Your task to perform on an android device: turn notification dots on Image 0: 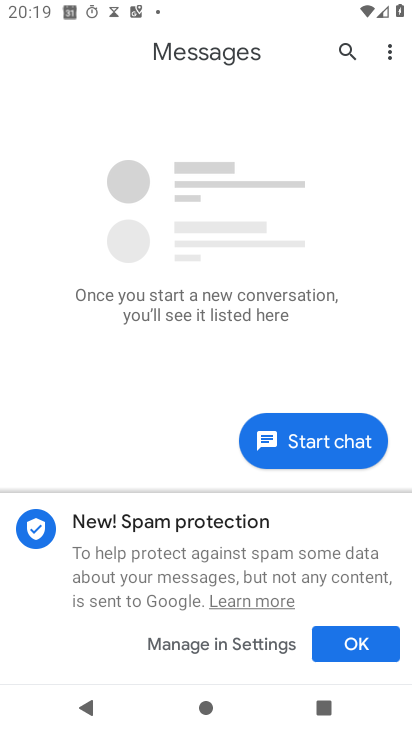
Step 0: press home button
Your task to perform on an android device: turn notification dots on Image 1: 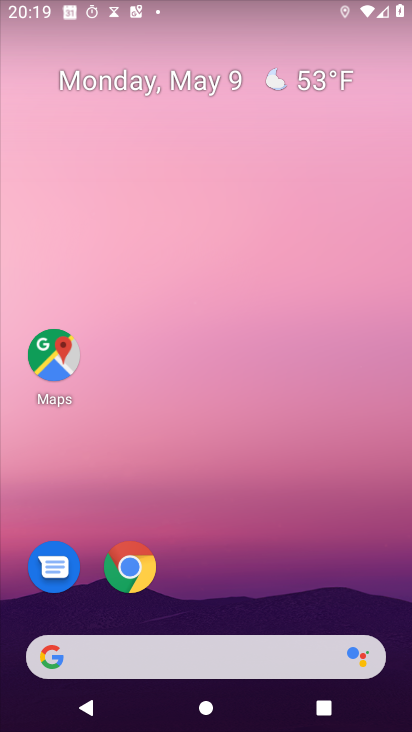
Step 1: drag from (273, 560) to (269, 13)
Your task to perform on an android device: turn notification dots on Image 2: 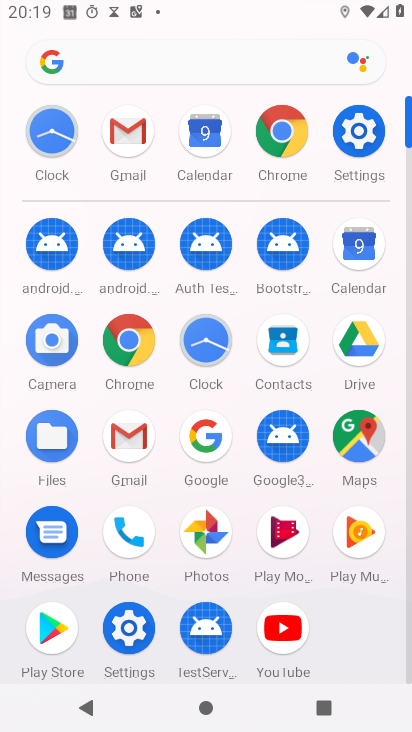
Step 2: click (343, 153)
Your task to perform on an android device: turn notification dots on Image 3: 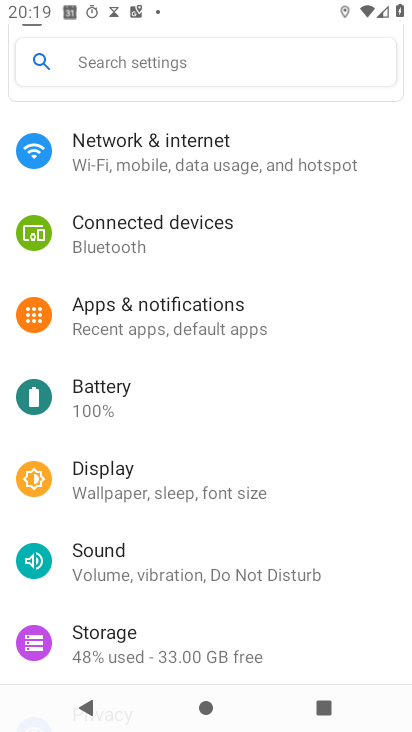
Step 3: drag from (127, 601) to (129, 413)
Your task to perform on an android device: turn notification dots on Image 4: 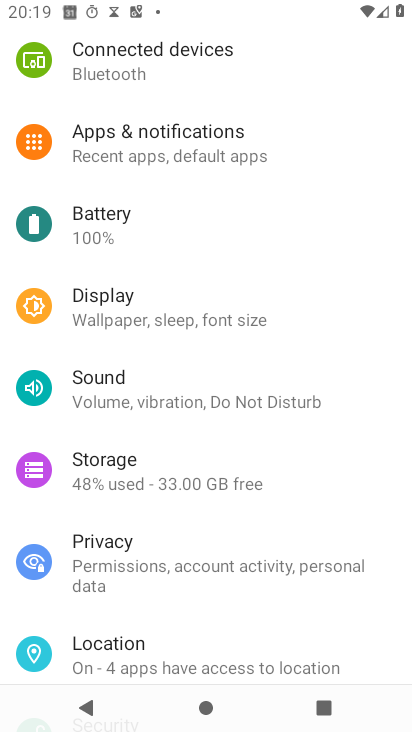
Step 4: click (214, 162)
Your task to perform on an android device: turn notification dots on Image 5: 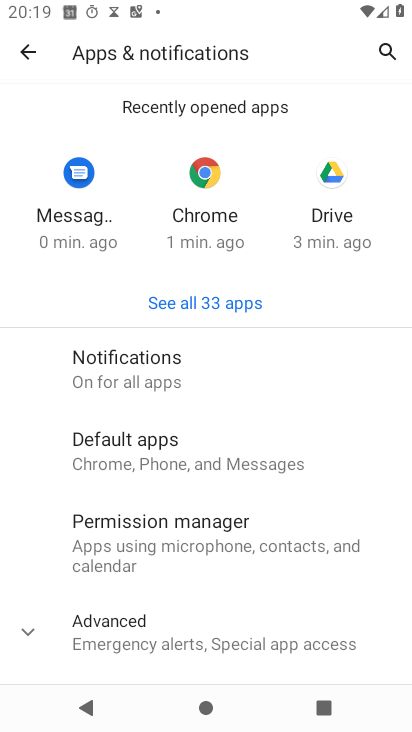
Step 5: click (169, 368)
Your task to perform on an android device: turn notification dots on Image 6: 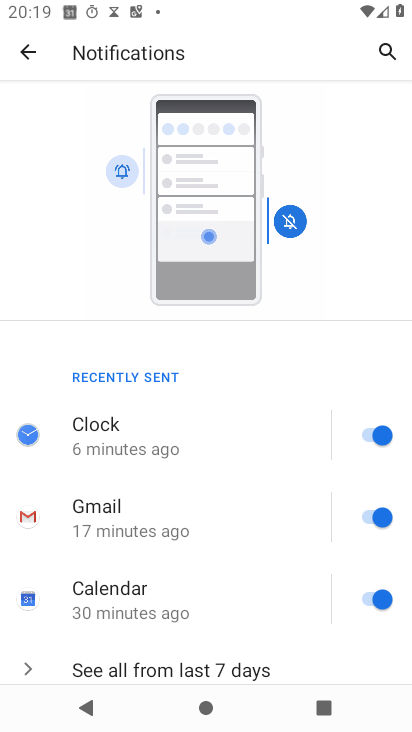
Step 6: drag from (224, 573) to (200, 383)
Your task to perform on an android device: turn notification dots on Image 7: 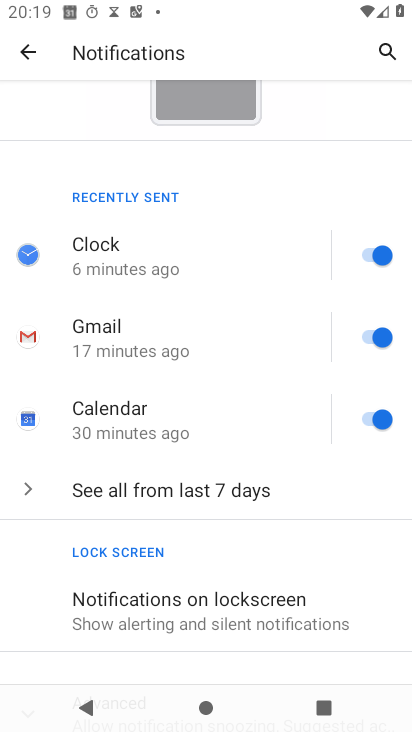
Step 7: drag from (180, 617) to (212, 430)
Your task to perform on an android device: turn notification dots on Image 8: 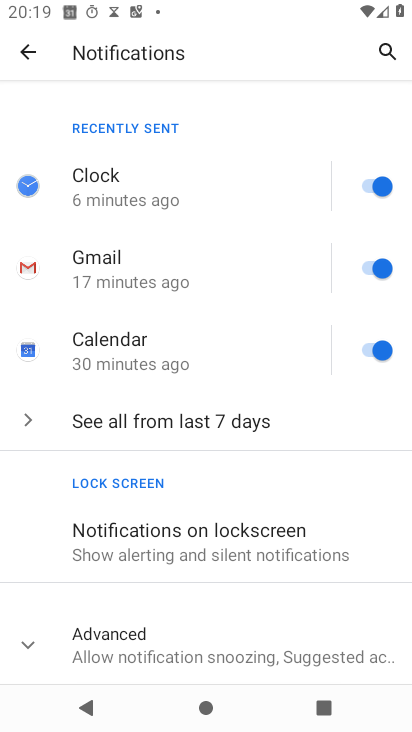
Step 8: click (201, 621)
Your task to perform on an android device: turn notification dots on Image 9: 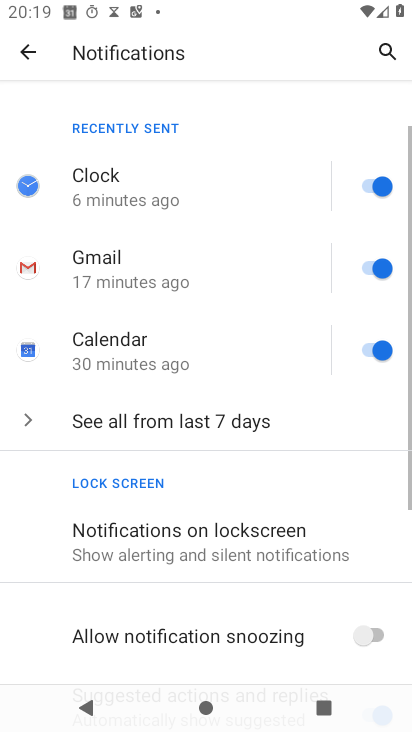
Step 9: drag from (206, 648) to (211, 399)
Your task to perform on an android device: turn notification dots on Image 10: 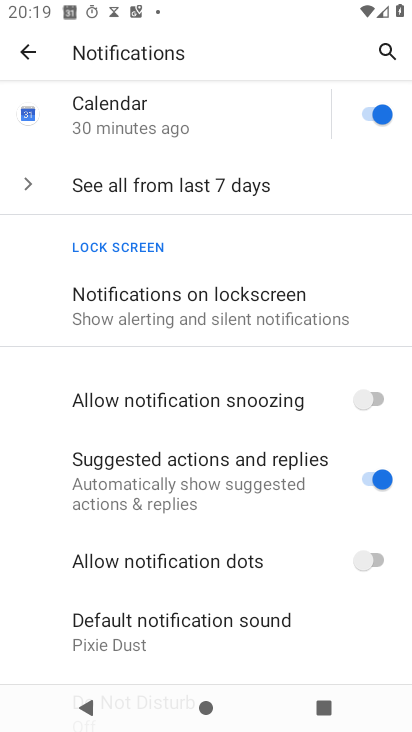
Step 10: click (365, 556)
Your task to perform on an android device: turn notification dots on Image 11: 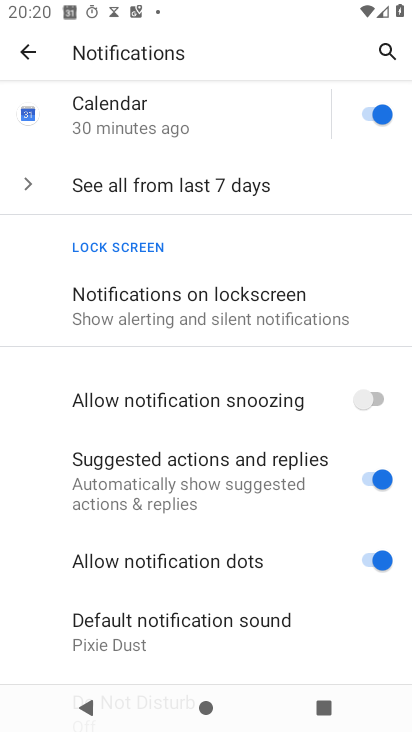
Step 11: task complete